Your task to perform on an android device: Turn off the flashlight Image 0: 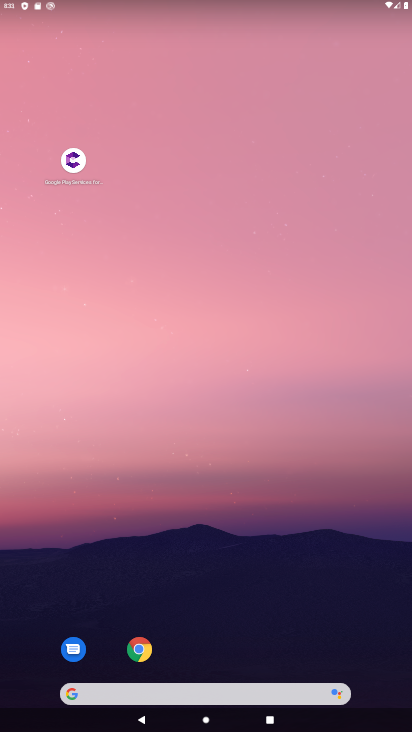
Step 0: drag from (215, 610) to (251, 31)
Your task to perform on an android device: Turn off the flashlight Image 1: 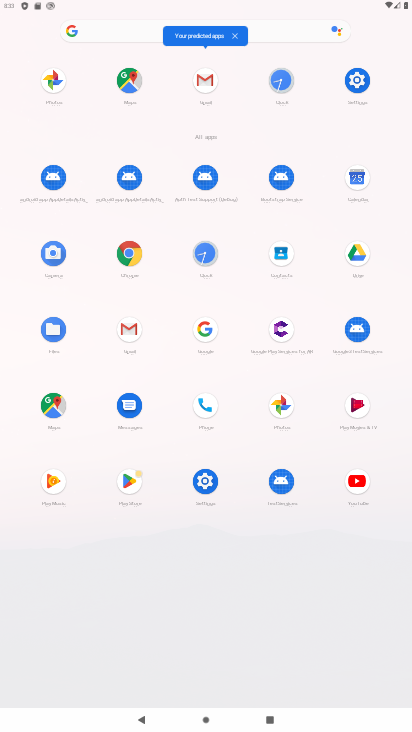
Step 1: click (353, 86)
Your task to perform on an android device: Turn off the flashlight Image 2: 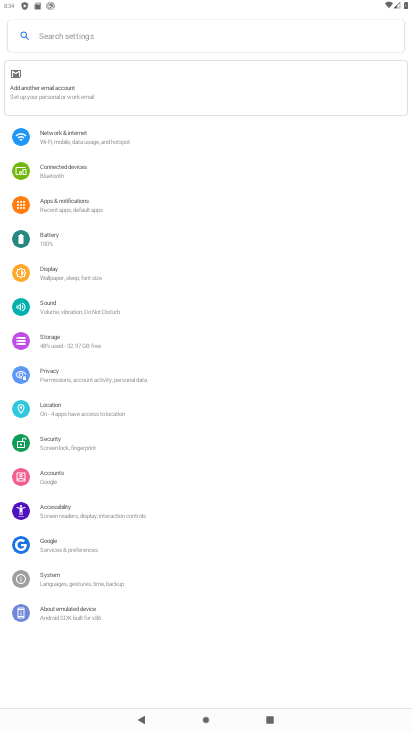
Step 2: click (54, 268)
Your task to perform on an android device: Turn off the flashlight Image 3: 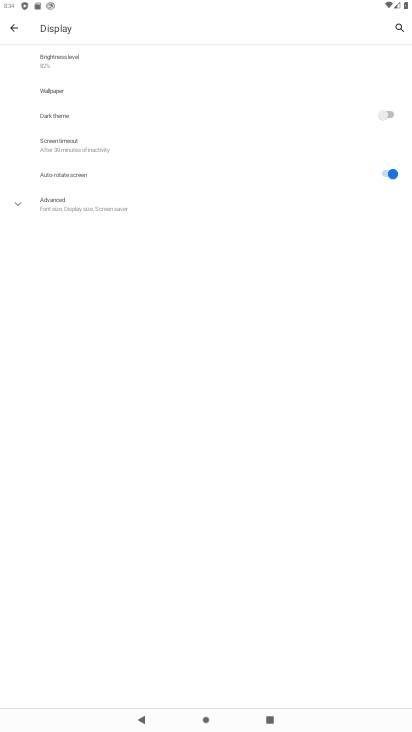
Step 3: task complete